Your task to perform on an android device: toggle airplane mode Image 0: 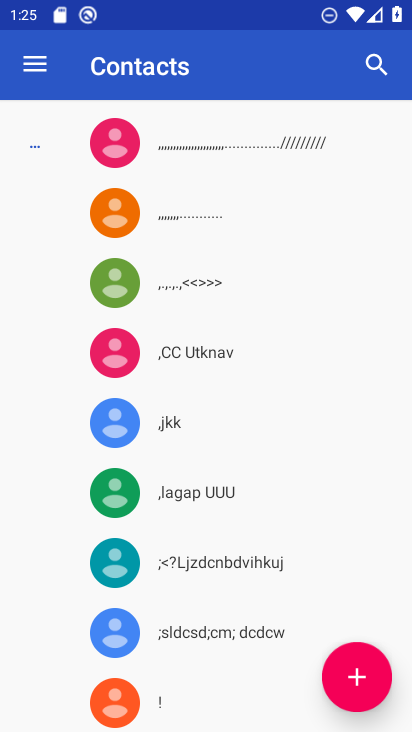
Step 0: press home button
Your task to perform on an android device: toggle airplane mode Image 1: 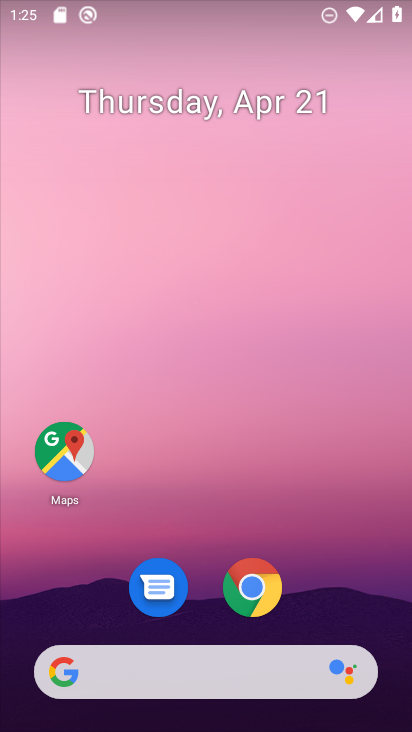
Step 1: drag from (315, 601) to (250, 101)
Your task to perform on an android device: toggle airplane mode Image 2: 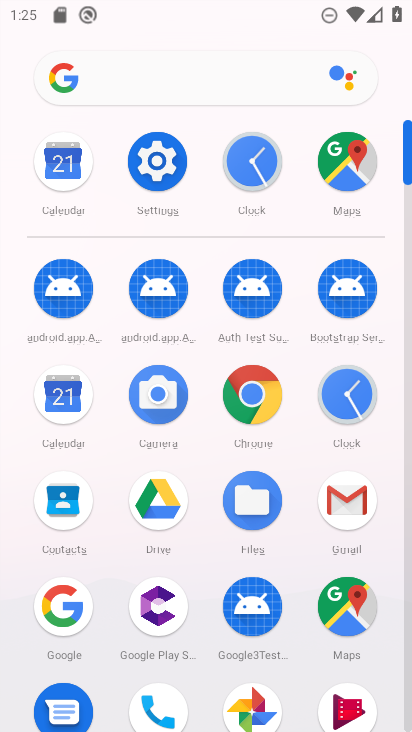
Step 2: click (153, 162)
Your task to perform on an android device: toggle airplane mode Image 3: 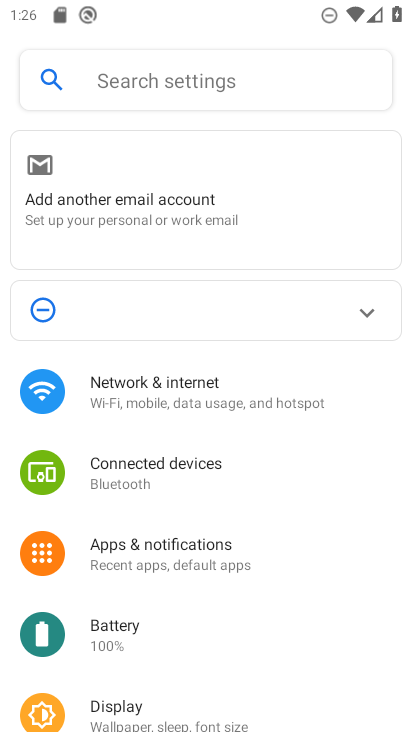
Step 3: click (152, 397)
Your task to perform on an android device: toggle airplane mode Image 4: 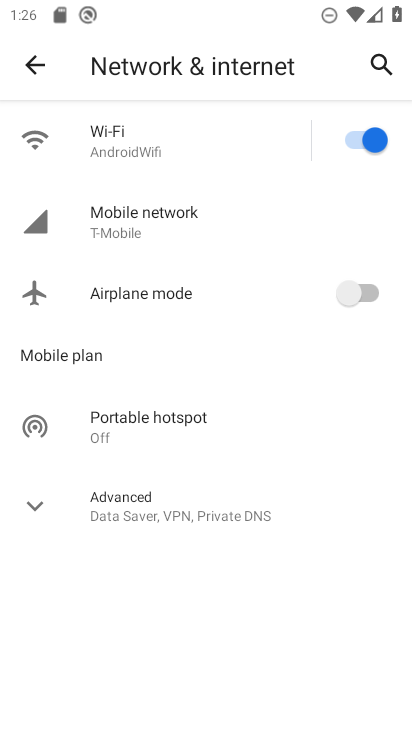
Step 4: click (344, 298)
Your task to perform on an android device: toggle airplane mode Image 5: 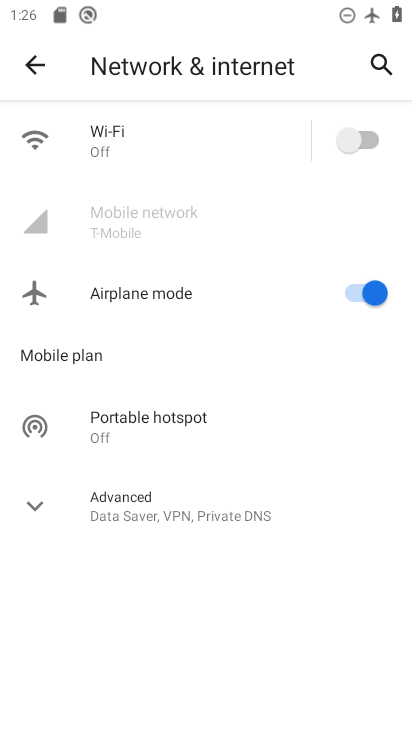
Step 5: task complete